Your task to perform on an android device: create a new album in the google photos Image 0: 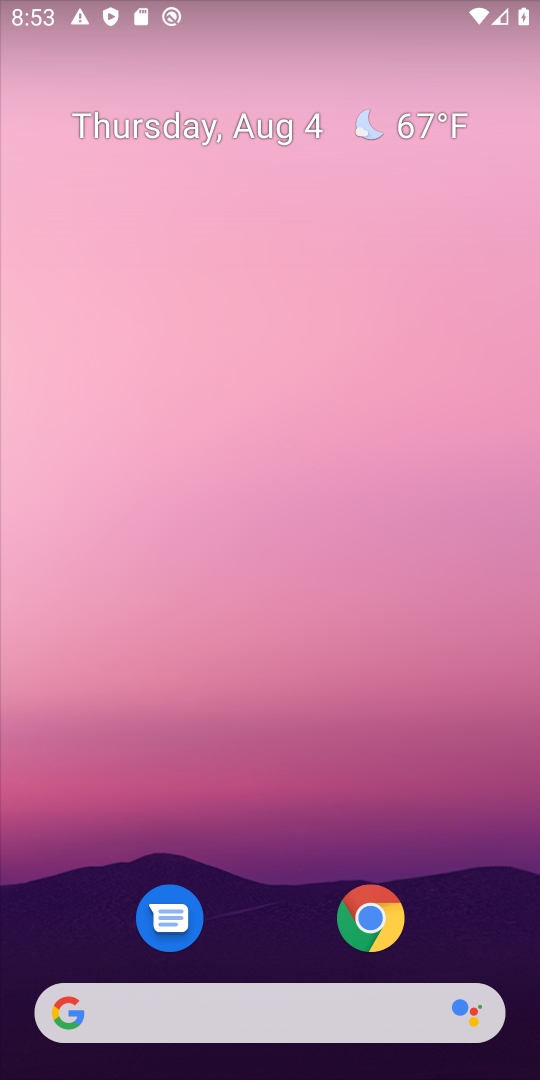
Step 0: press home button
Your task to perform on an android device: create a new album in the google photos Image 1: 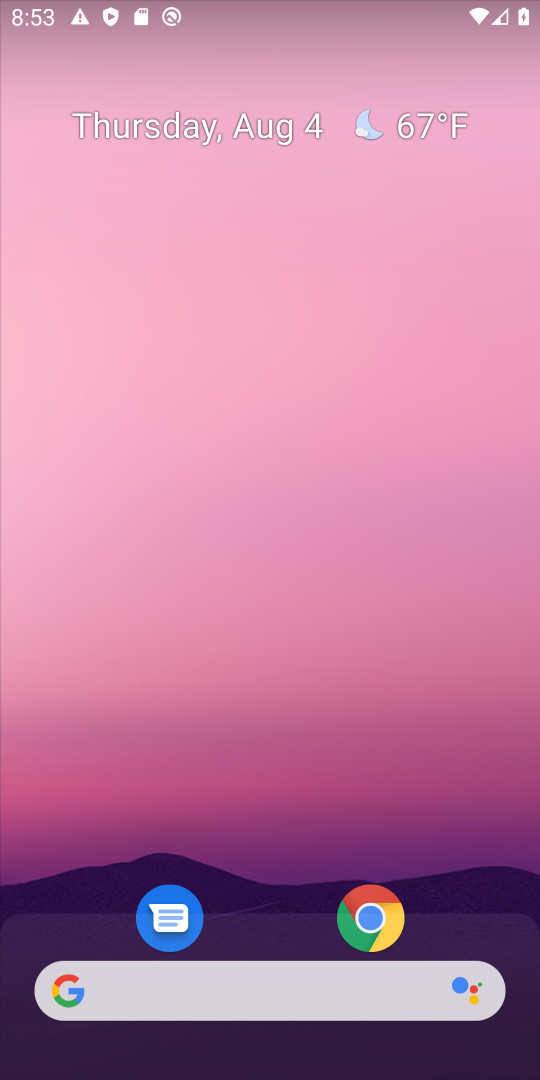
Step 1: drag from (270, 528) to (270, 17)
Your task to perform on an android device: create a new album in the google photos Image 2: 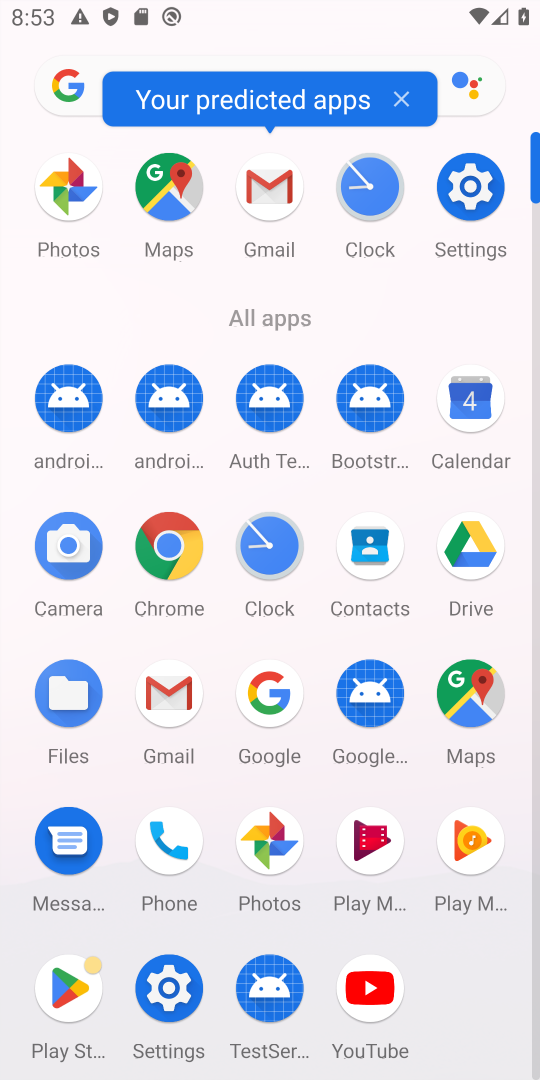
Step 2: click (269, 828)
Your task to perform on an android device: create a new album in the google photos Image 3: 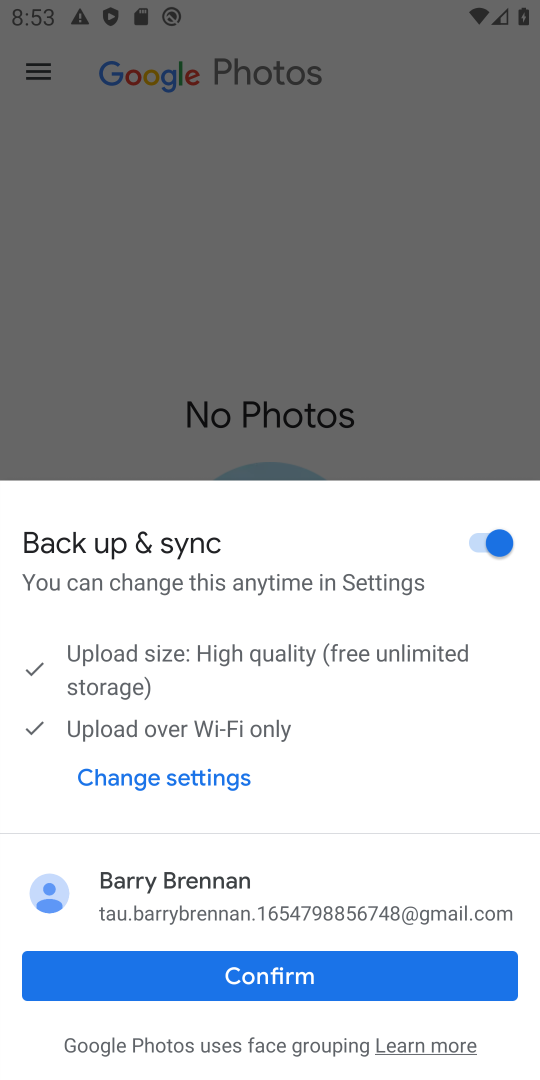
Step 3: click (260, 972)
Your task to perform on an android device: create a new album in the google photos Image 4: 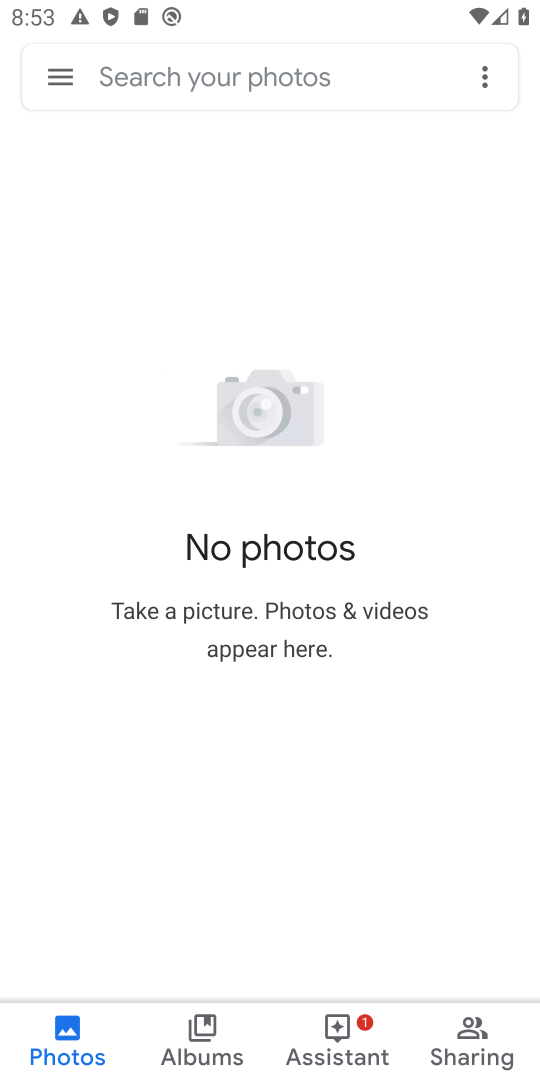
Step 4: click (202, 1033)
Your task to perform on an android device: create a new album in the google photos Image 5: 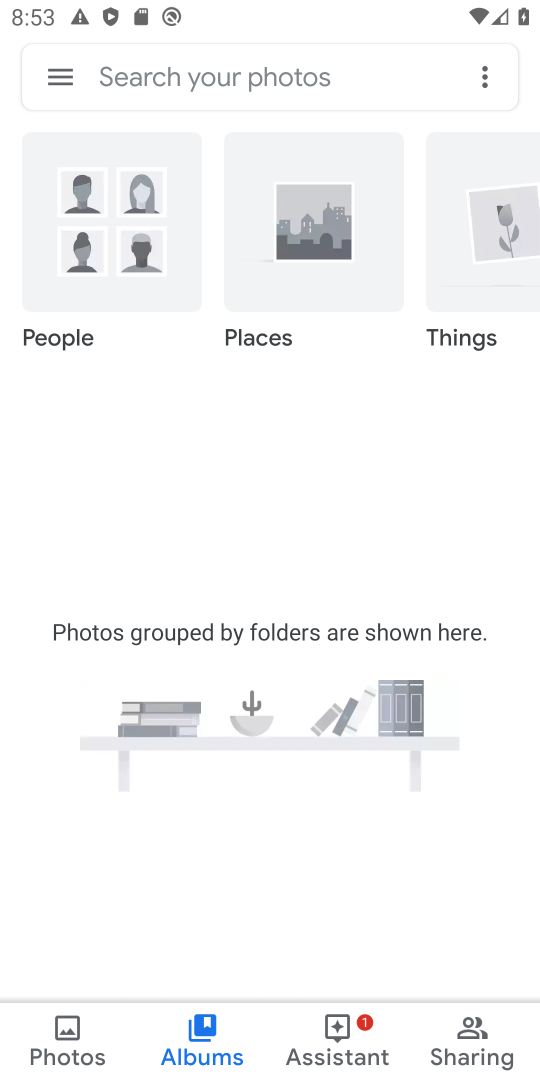
Step 5: click (484, 67)
Your task to perform on an android device: create a new album in the google photos Image 6: 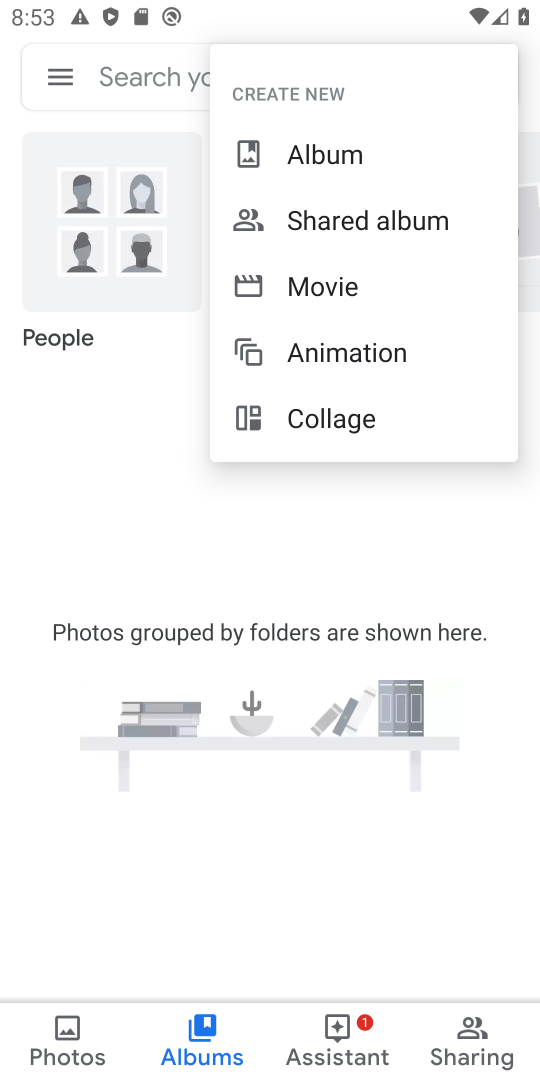
Step 6: click (363, 153)
Your task to perform on an android device: create a new album in the google photos Image 7: 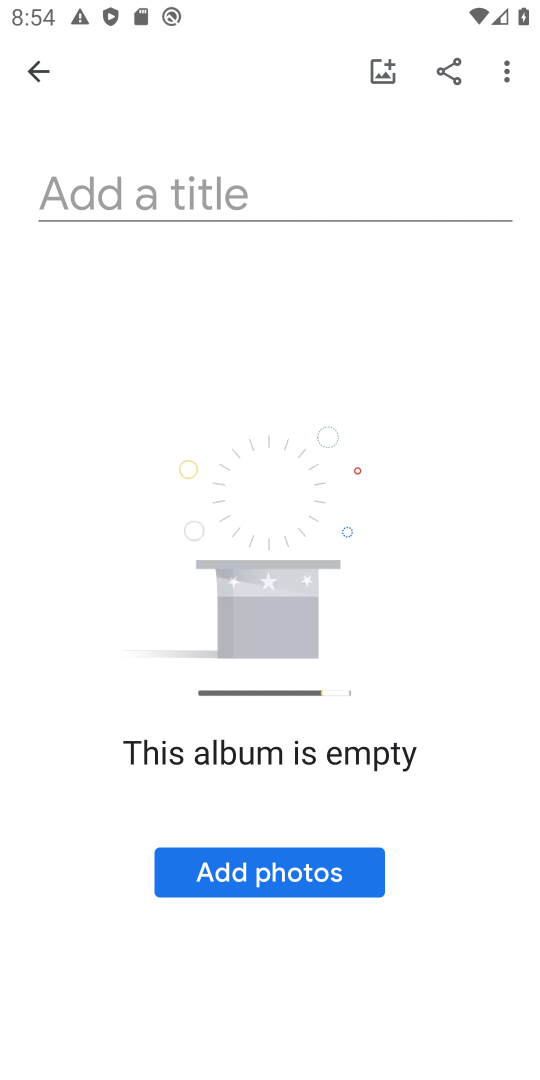
Step 7: task complete